Your task to perform on an android device: check out phone information Image 0: 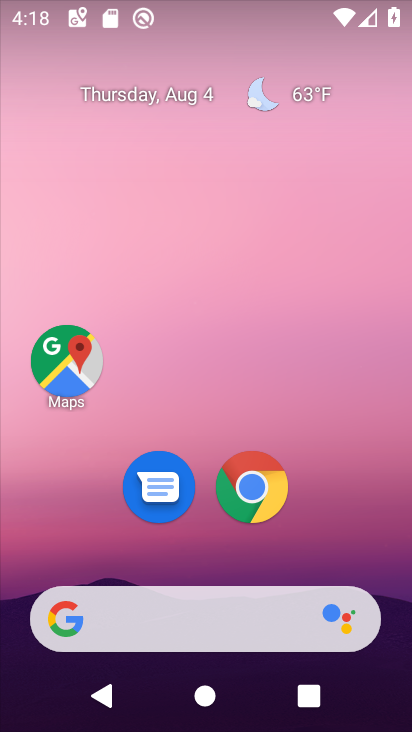
Step 0: drag from (184, 564) to (188, 18)
Your task to perform on an android device: check out phone information Image 1: 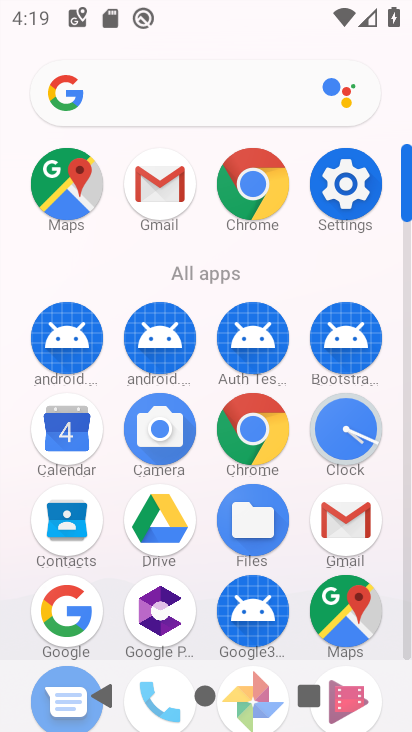
Step 1: click (346, 185)
Your task to perform on an android device: check out phone information Image 2: 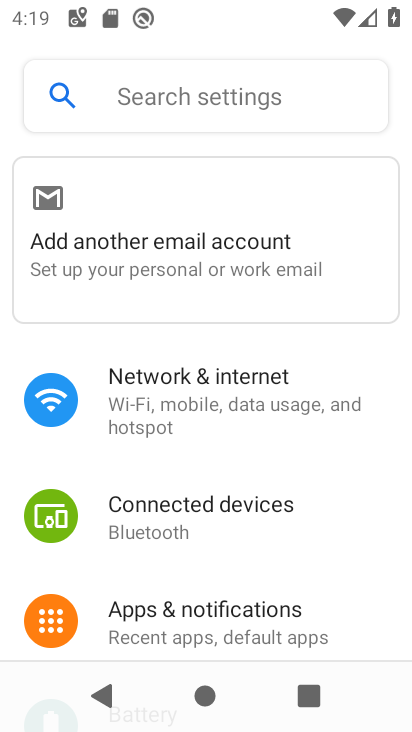
Step 2: drag from (135, 632) to (259, 35)
Your task to perform on an android device: check out phone information Image 3: 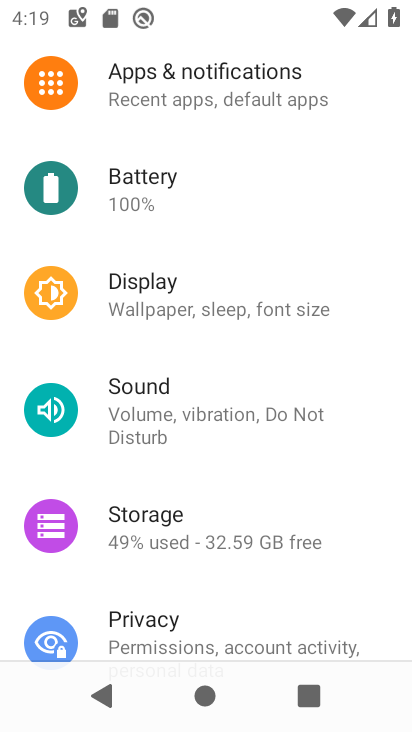
Step 3: drag from (170, 632) to (255, 13)
Your task to perform on an android device: check out phone information Image 4: 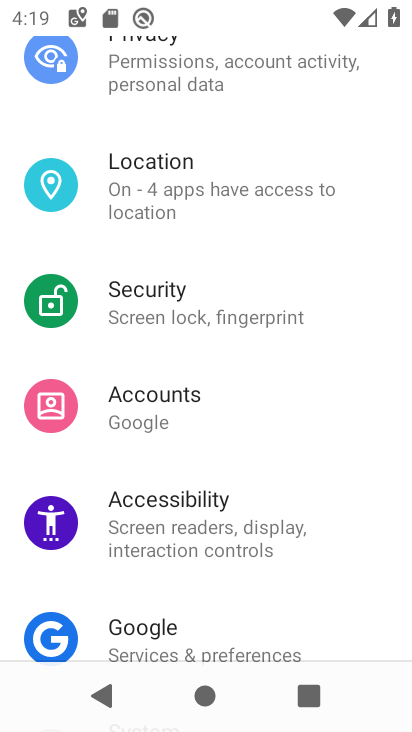
Step 4: drag from (161, 630) to (270, 1)
Your task to perform on an android device: check out phone information Image 5: 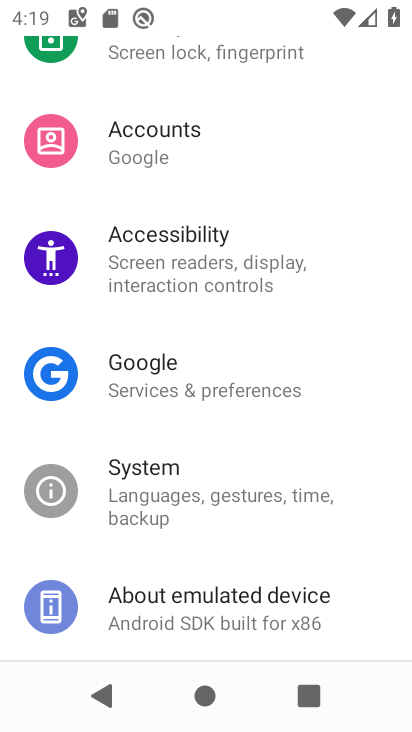
Step 5: click (166, 606)
Your task to perform on an android device: check out phone information Image 6: 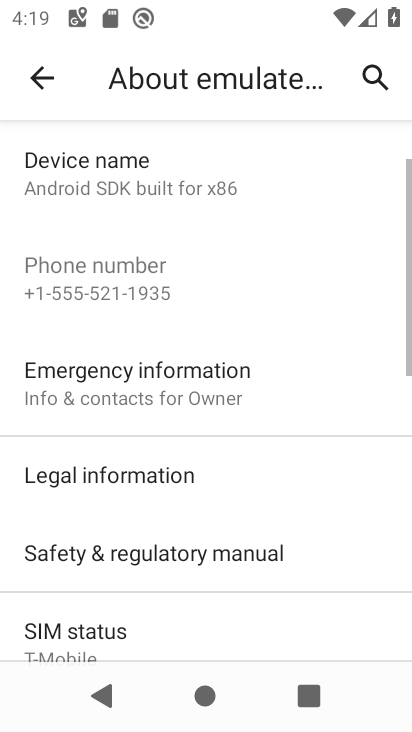
Step 6: task complete